Your task to perform on an android device: When is my next meeting? Image 0: 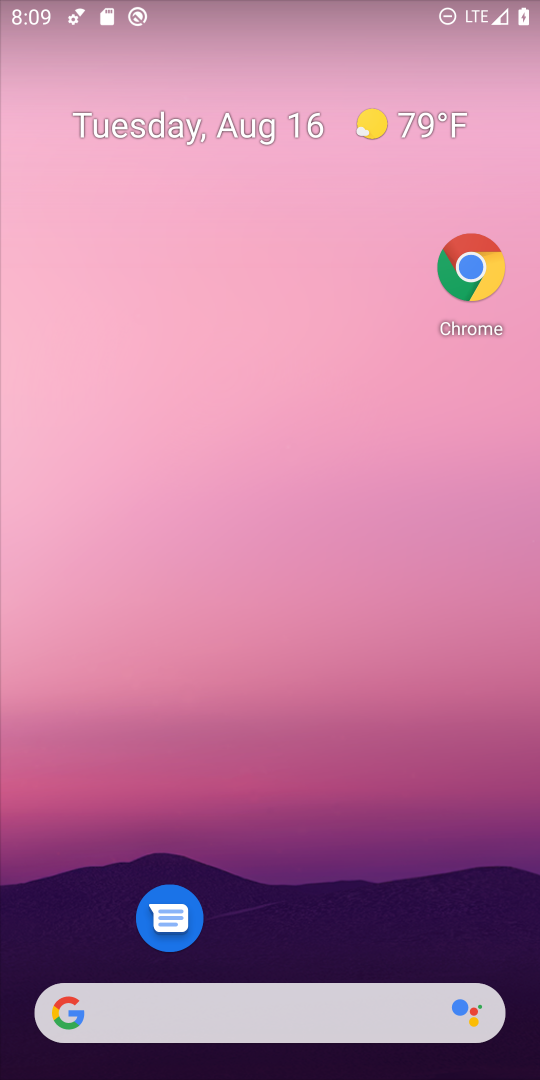
Step 0: drag from (259, 1043) to (297, 181)
Your task to perform on an android device: When is my next meeting? Image 1: 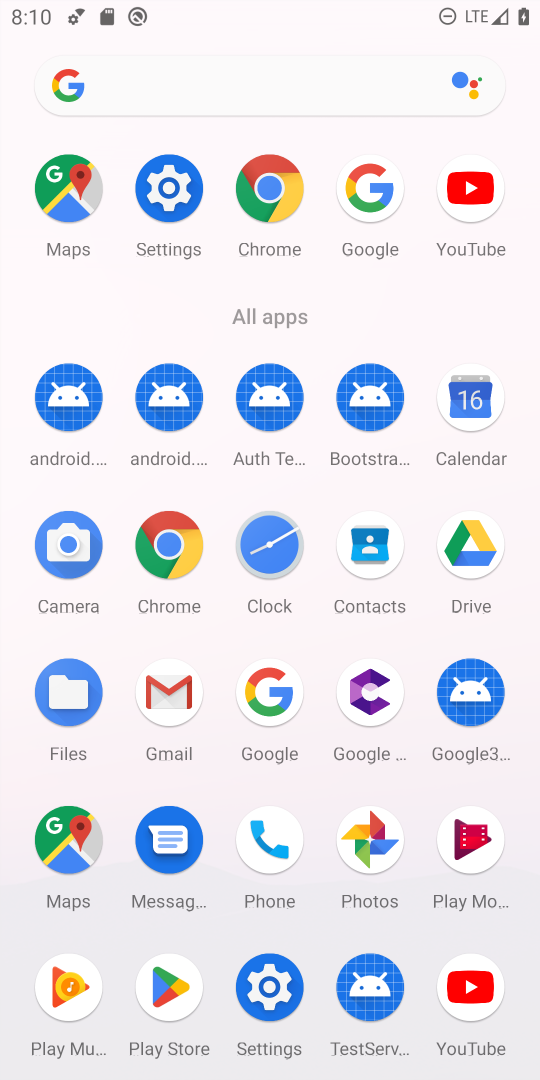
Step 1: click (477, 407)
Your task to perform on an android device: When is my next meeting? Image 2: 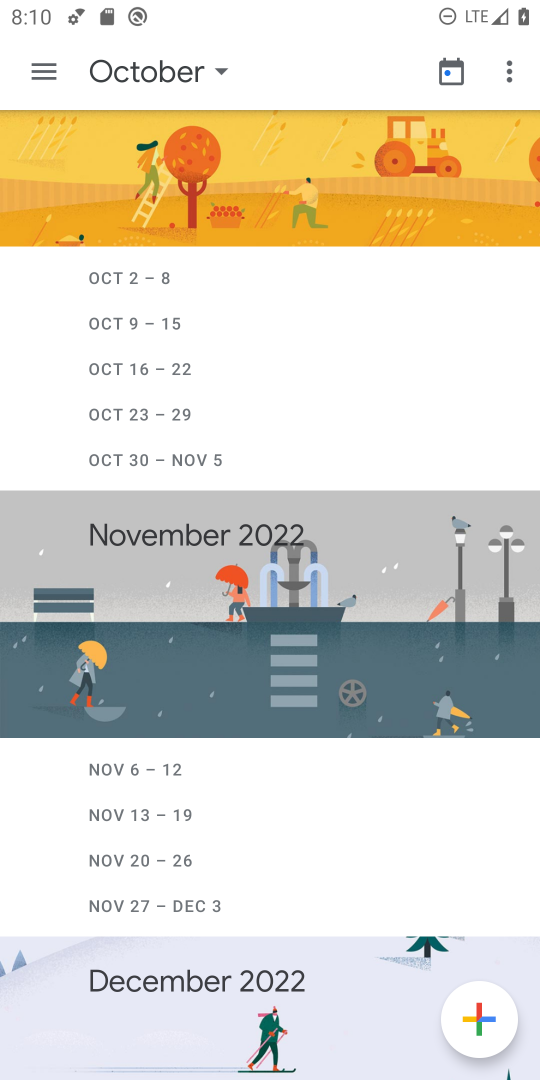
Step 2: task complete